Your task to perform on an android device: Check the news Image 0: 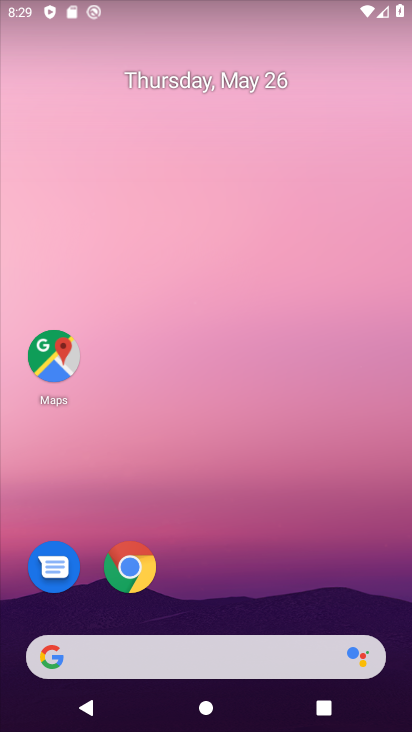
Step 0: click (194, 655)
Your task to perform on an android device: Check the news Image 1: 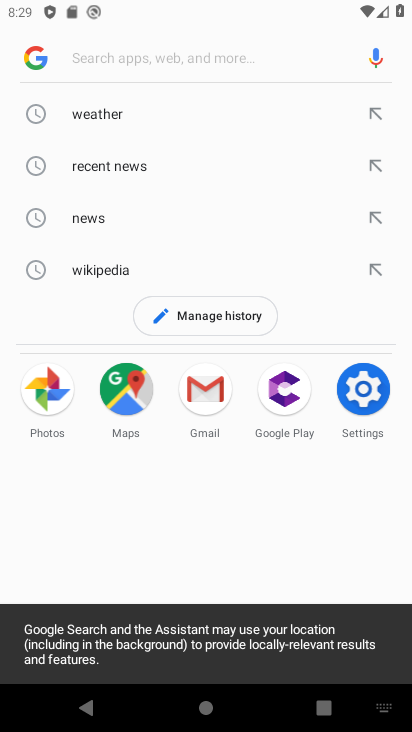
Step 1: click (88, 220)
Your task to perform on an android device: Check the news Image 2: 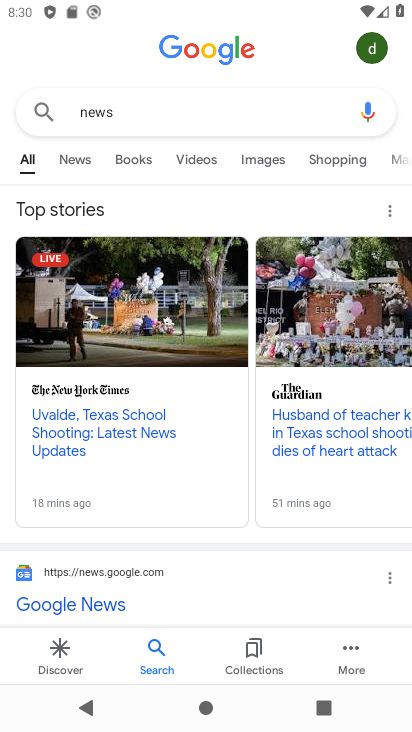
Step 2: click (77, 162)
Your task to perform on an android device: Check the news Image 3: 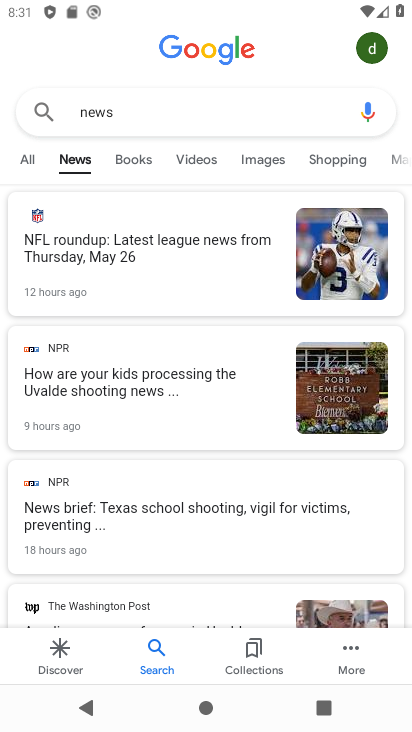
Step 3: task complete